Your task to perform on an android device: change your default location settings in chrome Image 0: 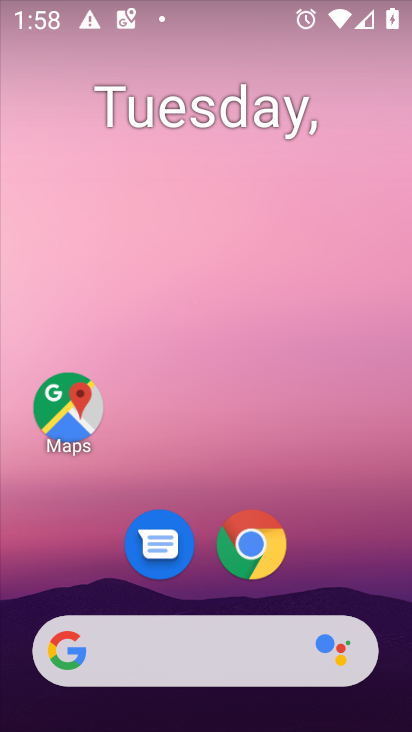
Step 0: drag from (335, 539) to (304, 24)
Your task to perform on an android device: change your default location settings in chrome Image 1: 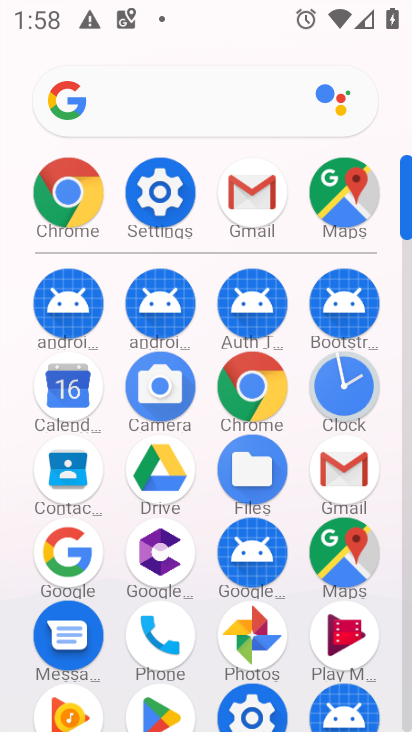
Step 1: click (246, 388)
Your task to perform on an android device: change your default location settings in chrome Image 2: 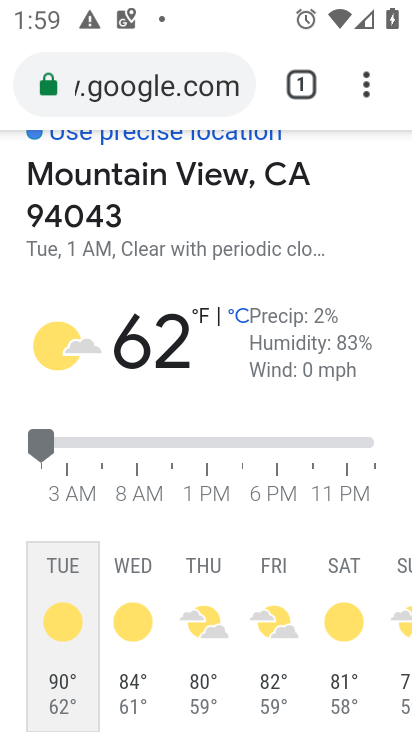
Step 2: drag from (369, 71) to (142, 598)
Your task to perform on an android device: change your default location settings in chrome Image 3: 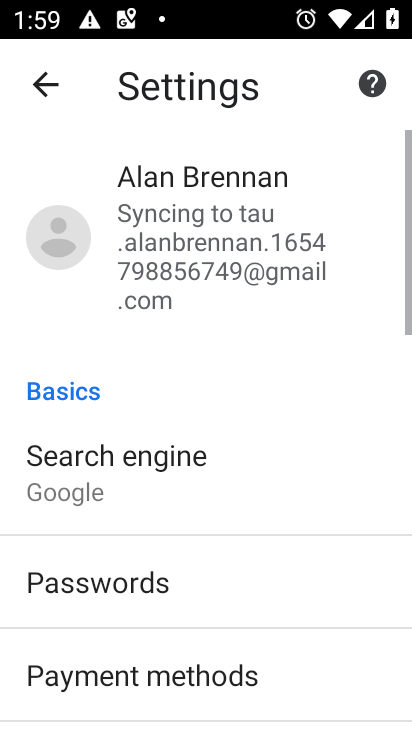
Step 3: drag from (232, 538) to (262, 46)
Your task to perform on an android device: change your default location settings in chrome Image 4: 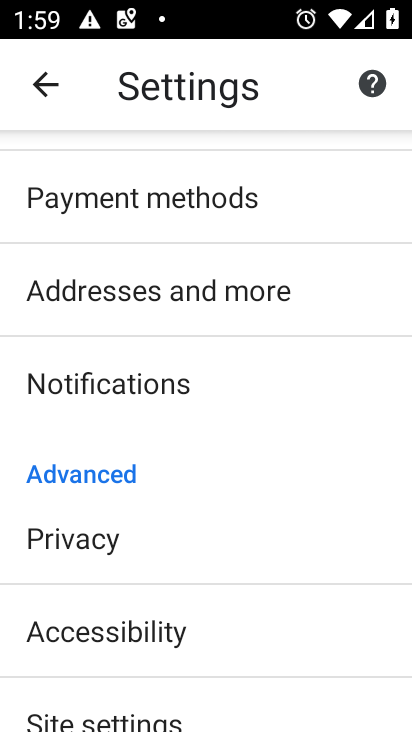
Step 4: drag from (131, 619) to (169, 311)
Your task to perform on an android device: change your default location settings in chrome Image 5: 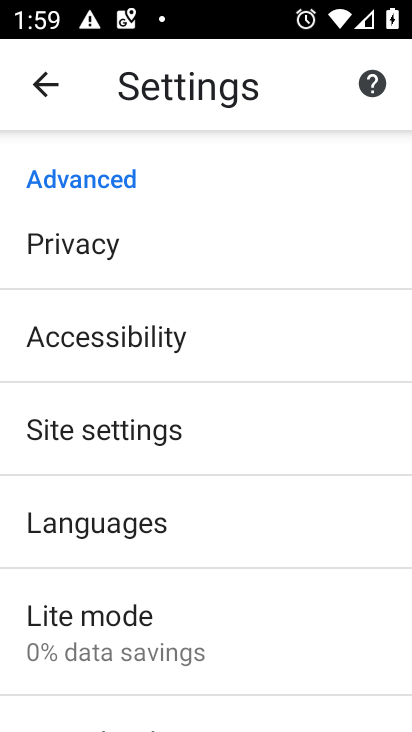
Step 5: click (108, 465)
Your task to perform on an android device: change your default location settings in chrome Image 6: 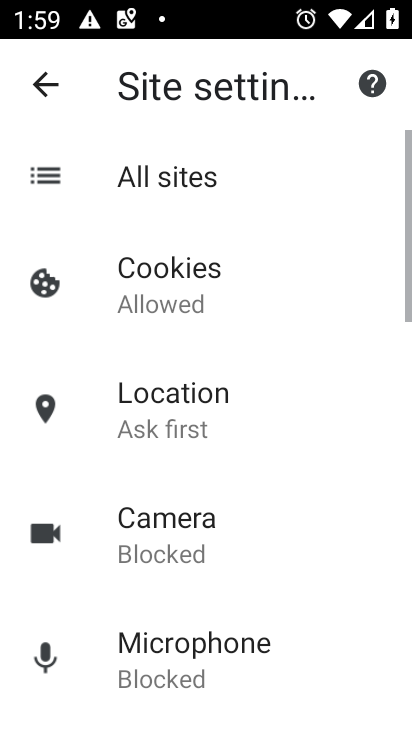
Step 6: click (201, 425)
Your task to perform on an android device: change your default location settings in chrome Image 7: 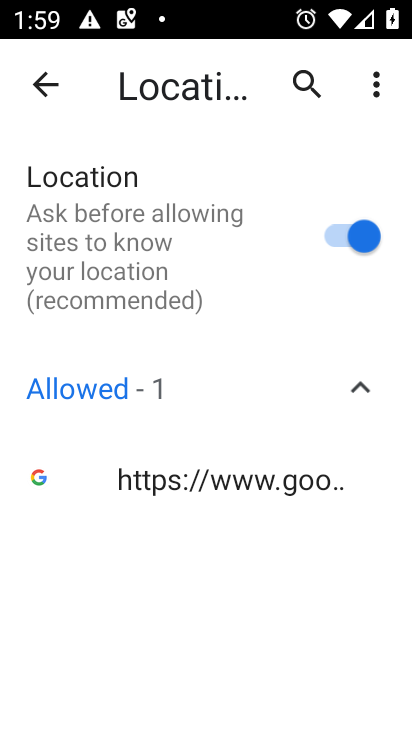
Step 7: click (365, 232)
Your task to perform on an android device: change your default location settings in chrome Image 8: 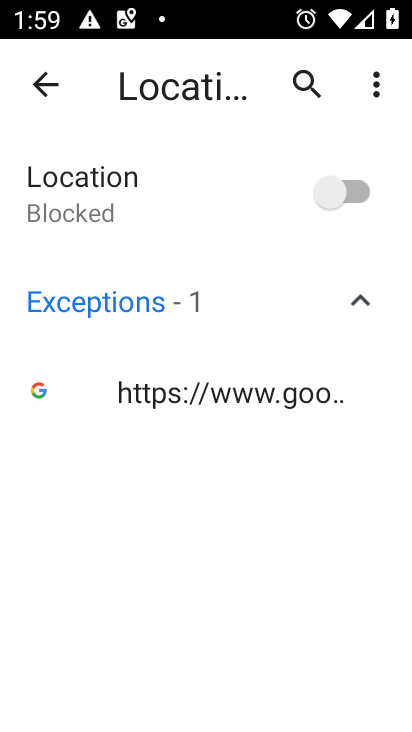
Step 8: task complete